Your task to perform on an android device: Open Chrome and go to the settings page Image 0: 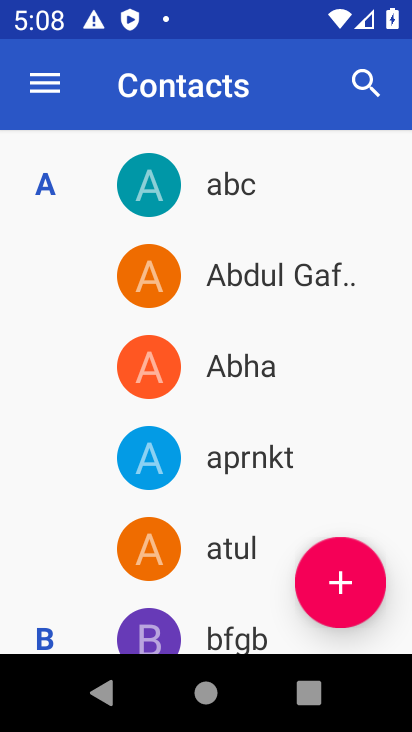
Step 0: press home button
Your task to perform on an android device: Open Chrome and go to the settings page Image 1: 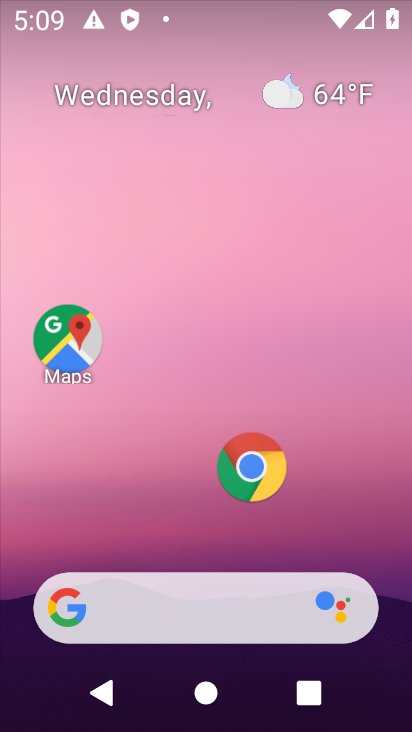
Step 1: drag from (120, 524) to (258, 170)
Your task to perform on an android device: Open Chrome and go to the settings page Image 2: 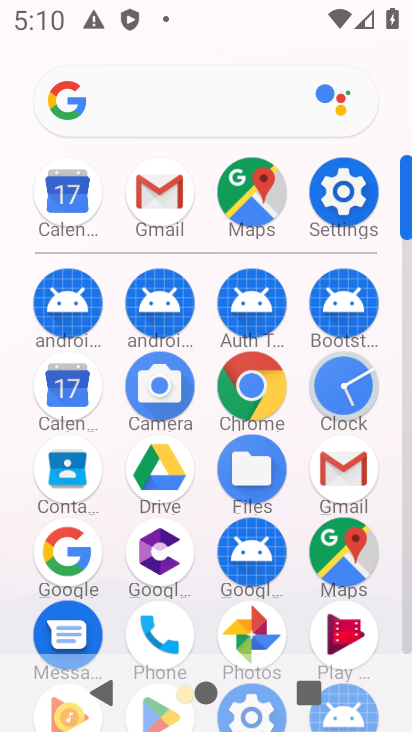
Step 2: click (344, 180)
Your task to perform on an android device: Open Chrome and go to the settings page Image 3: 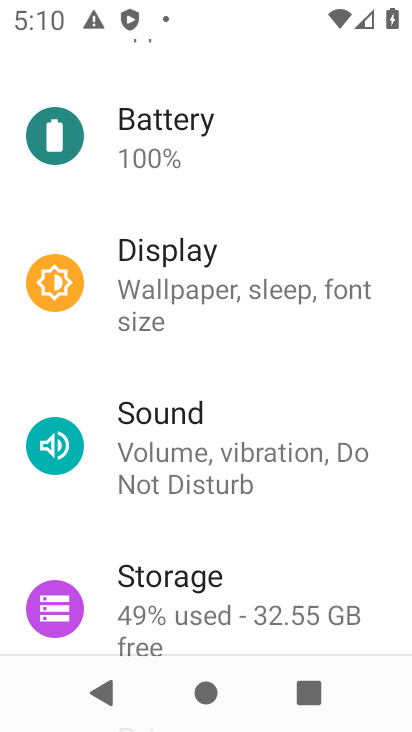
Step 3: task complete